Your task to perform on an android device: Open wifi settings Image 0: 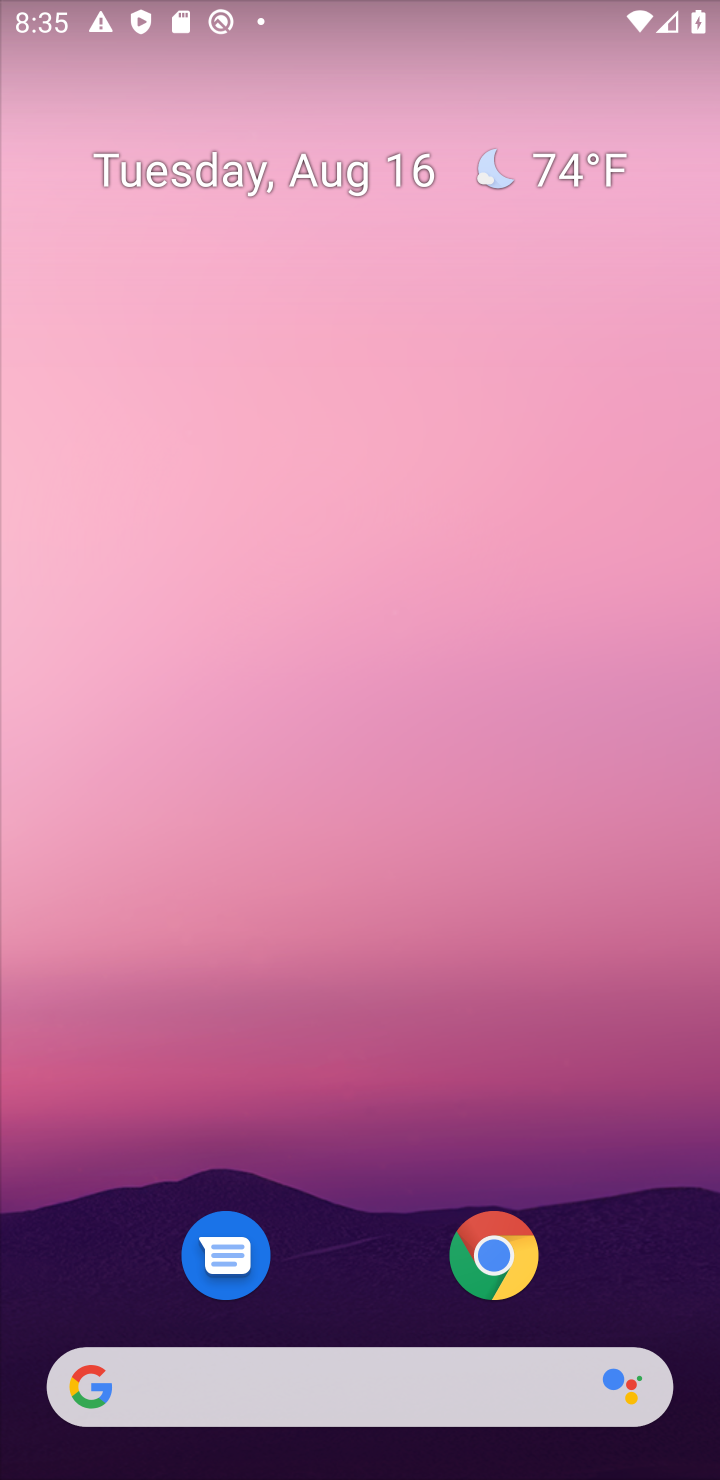
Step 0: drag from (355, 1379) to (435, 227)
Your task to perform on an android device: Open wifi settings Image 1: 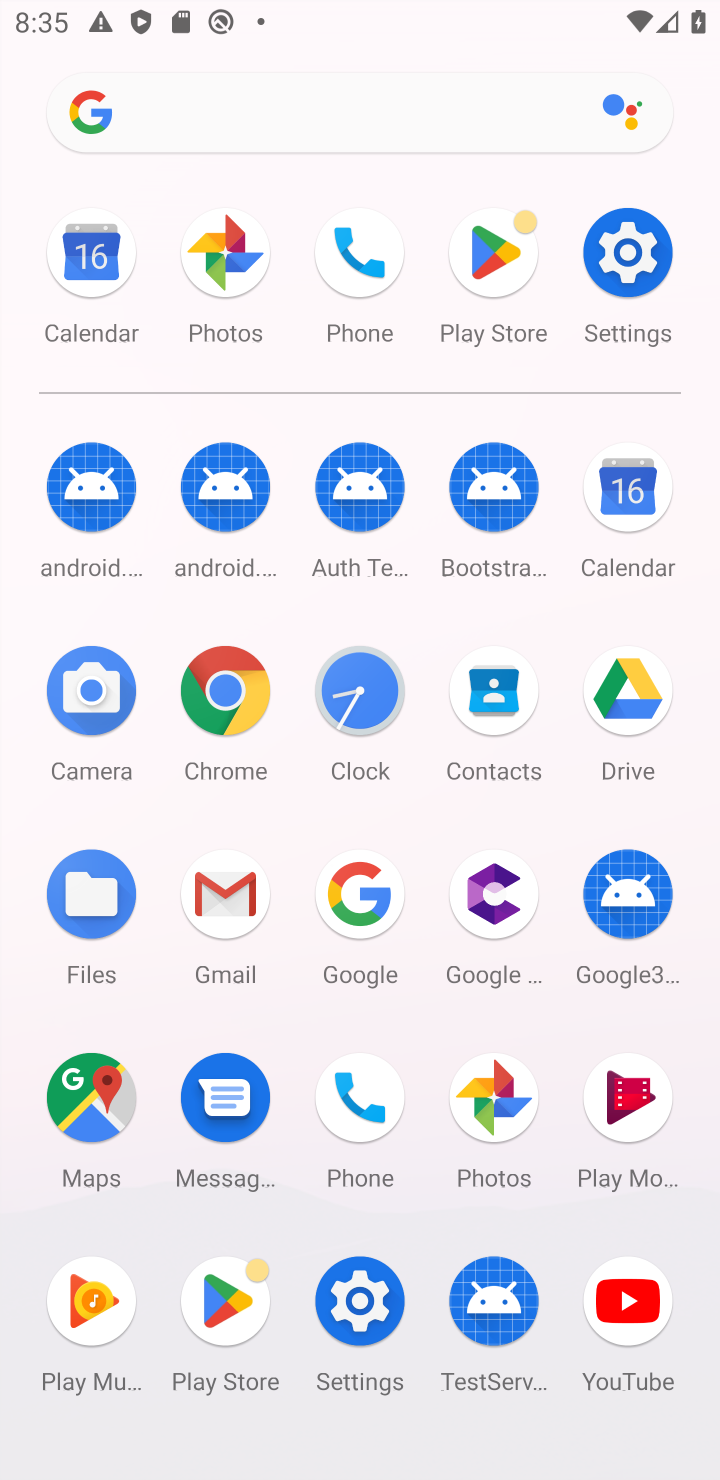
Step 1: click (642, 259)
Your task to perform on an android device: Open wifi settings Image 2: 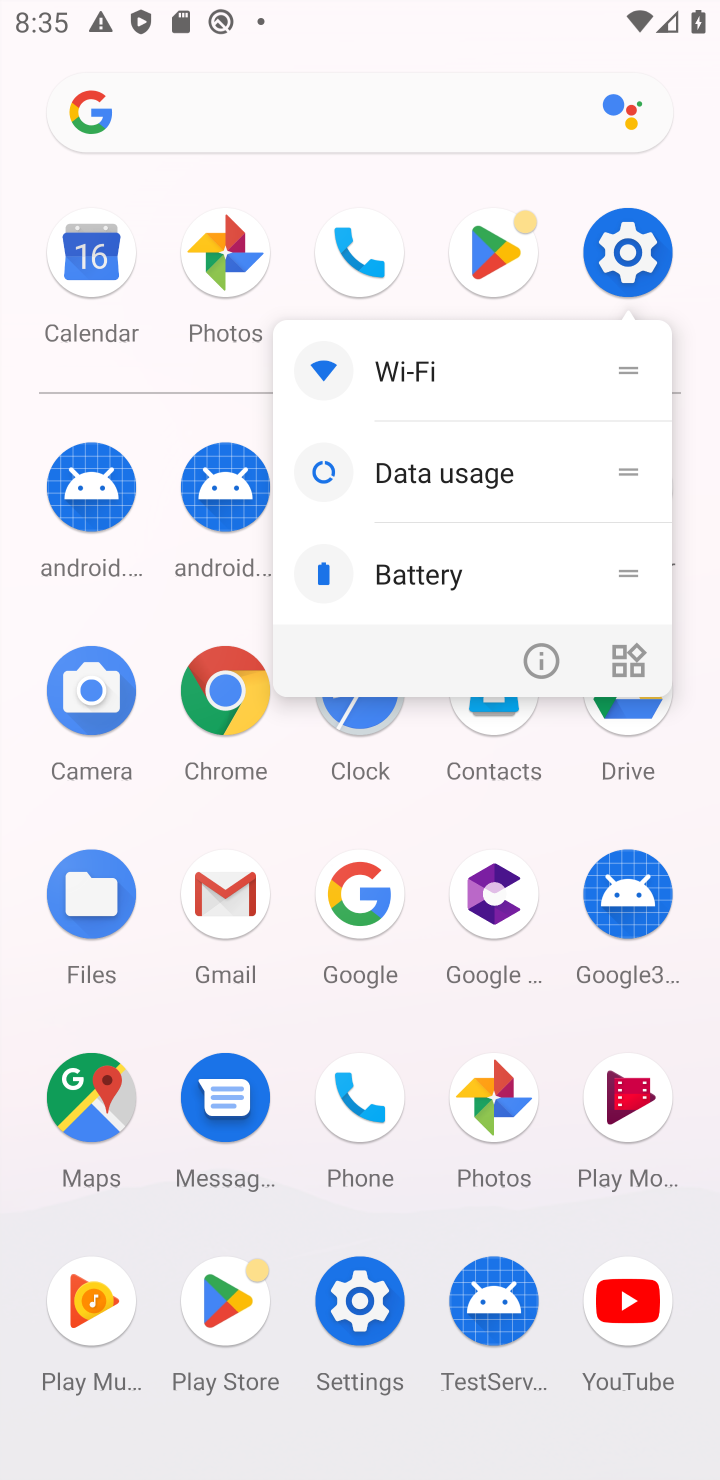
Step 2: click (635, 258)
Your task to perform on an android device: Open wifi settings Image 3: 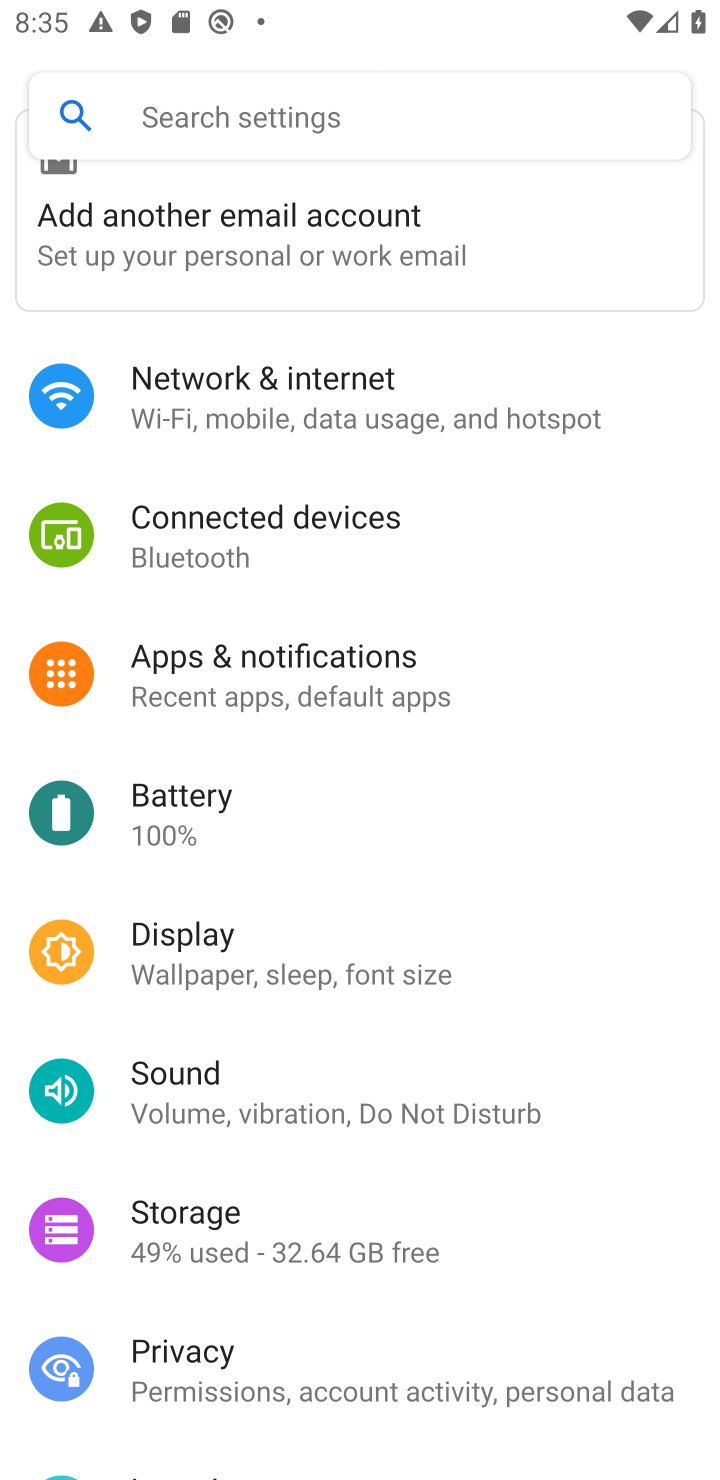
Step 3: click (401, 396)
Your task to perform on an android device: Open wifi settings Image 4: 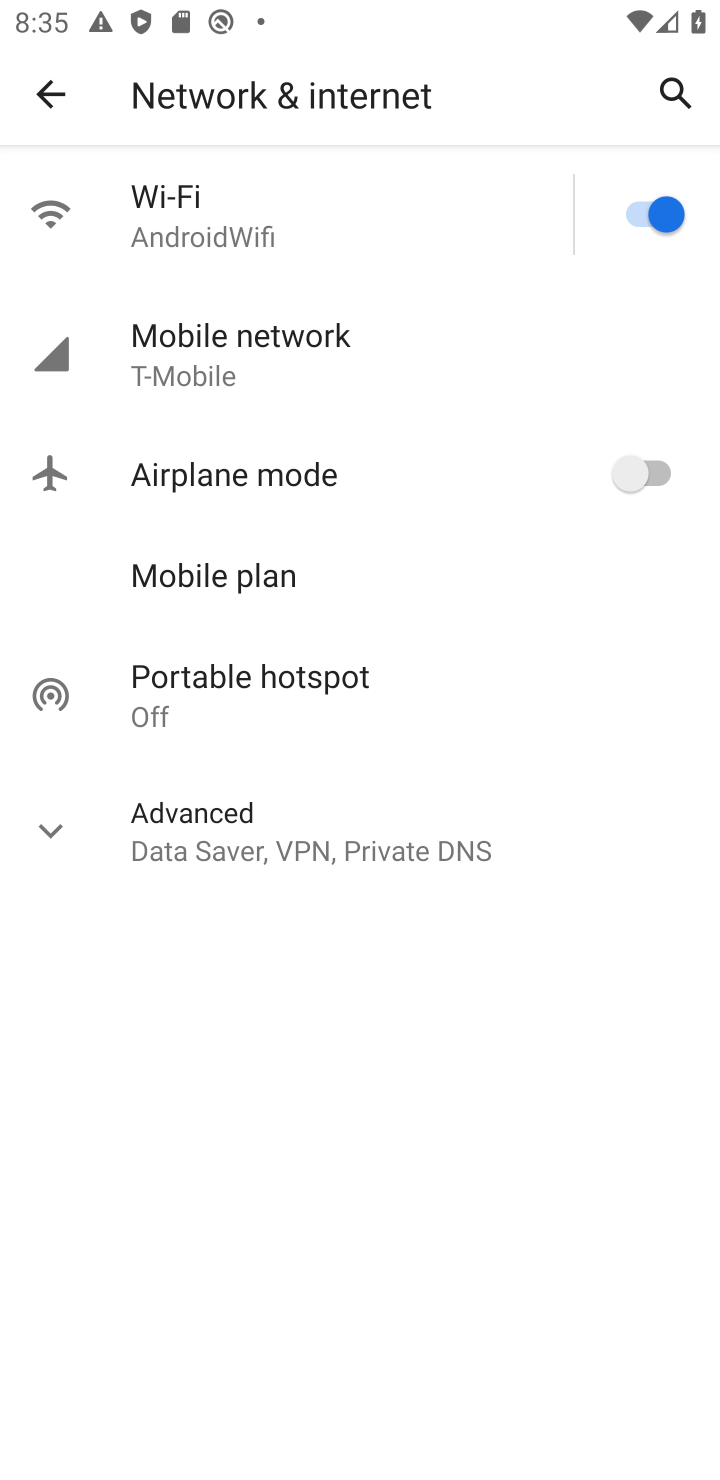
Step 4: click (233, 234)
Your task to perform on an android device: Open wifi settings Image 5: 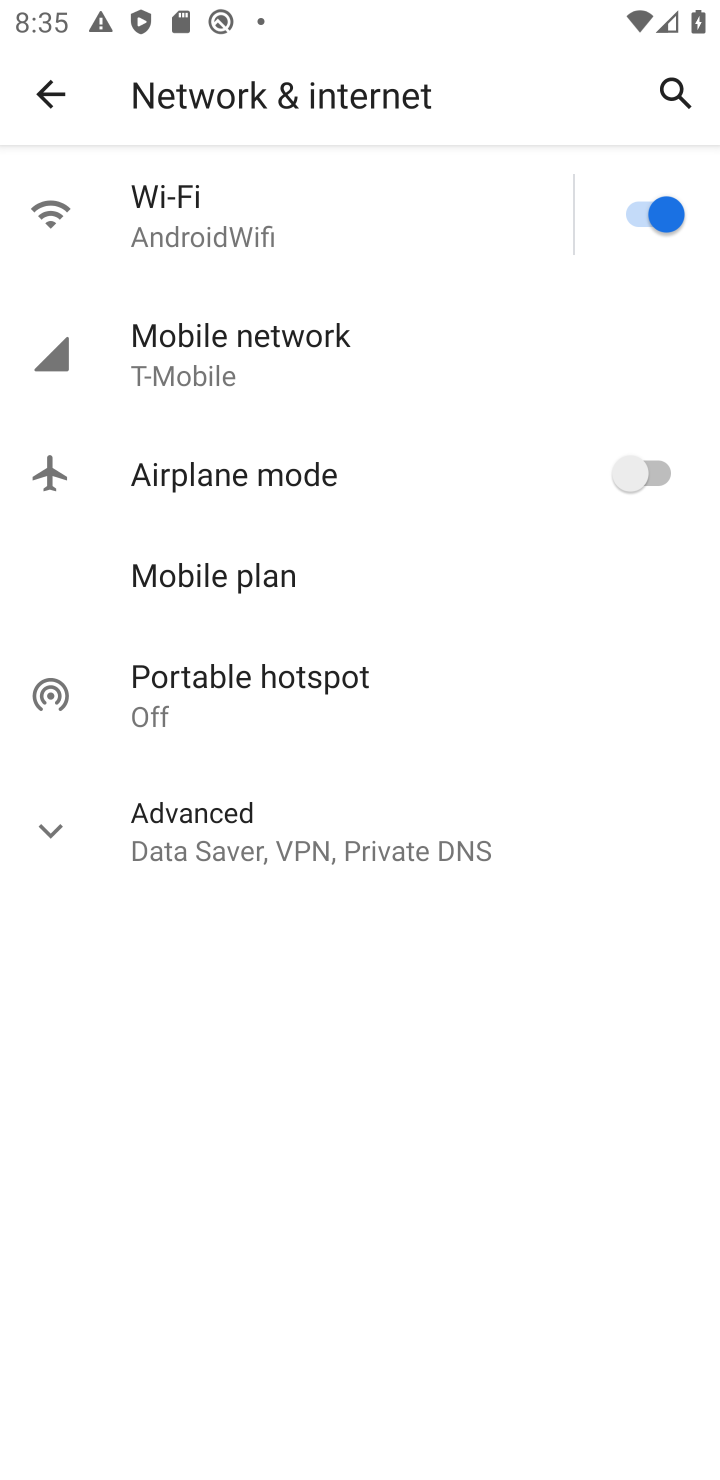
Step 5: click (233, 234)
Your task to perform on an android device: Open wifi settings Image 6: 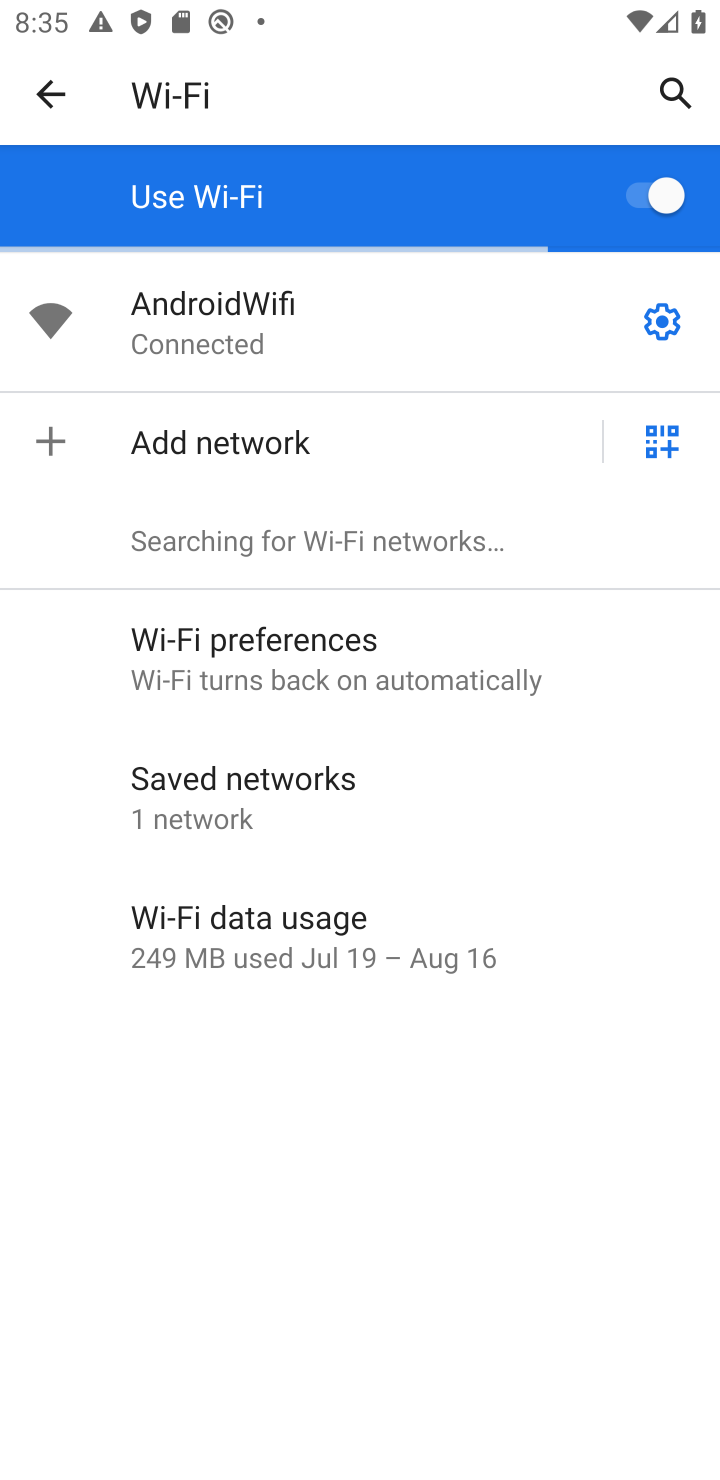
Step 6: task complete